Your task to perform on an android device: toggle priority inbox in the gmail app Image 0: 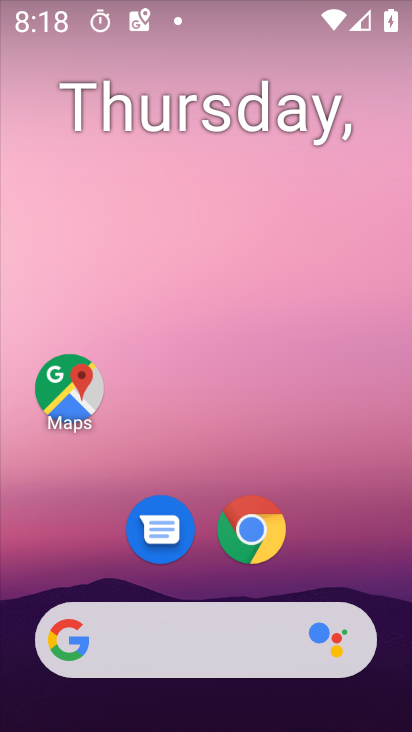
Step 0: drag from (388, 709) to (361, 212)
Your task to perform on an android device: toggle priority inbox in the gmail app Image 1: 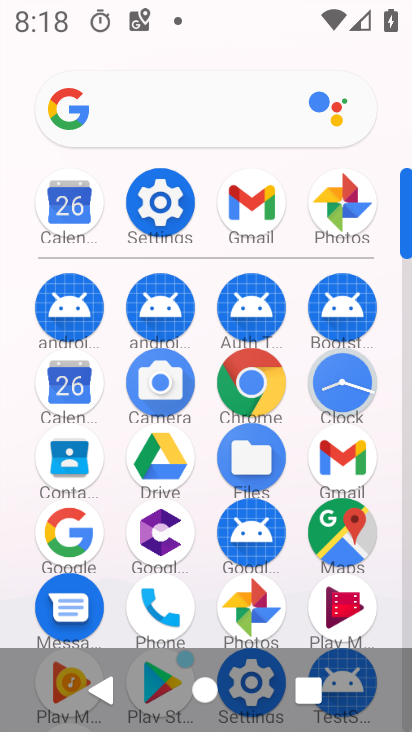
Step 1: click (356, 448)
Your task to perform on an android device: toggle priority inbox in the gmail app Image 2: 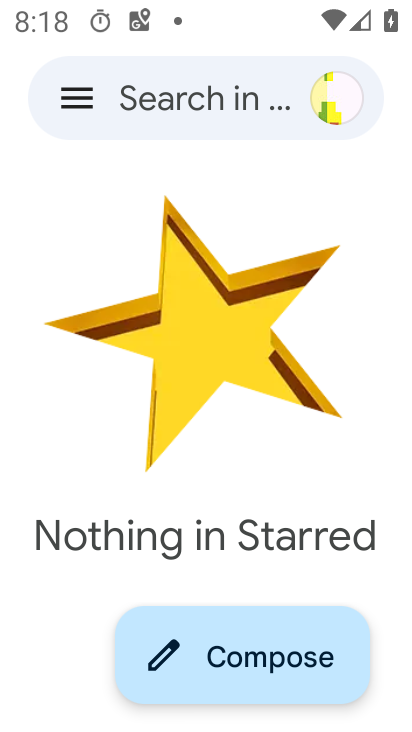
Step 2: click (70, 100)
Your task to perform on an android device: toggle priority inbox in the gmail app Image 3: 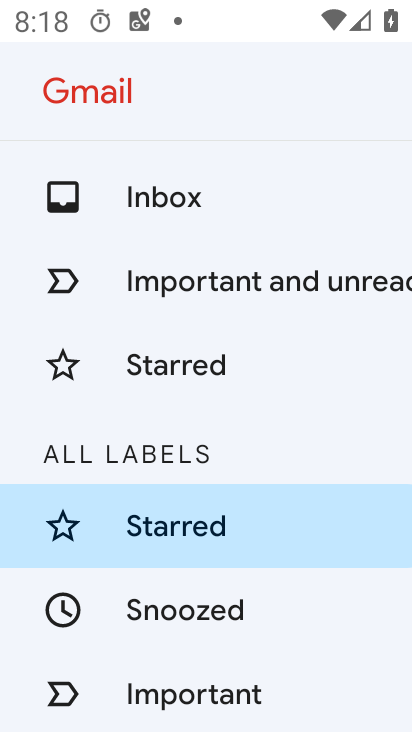
Step 3: drag from (375, 703) to (356, 131)
Your task to perform on an android device: toggle priority inbox in the gmail app Image 4: 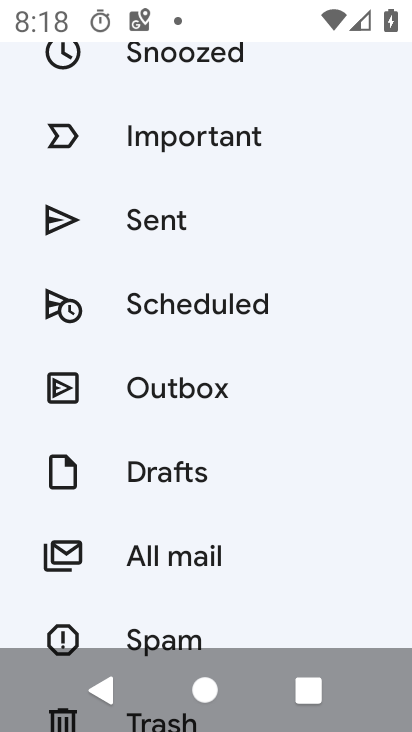
Step 4: drag from (342, 629) to (309, 168)
Your task to perform on an android device: toggle priority inbox in the gmail app Image 5: 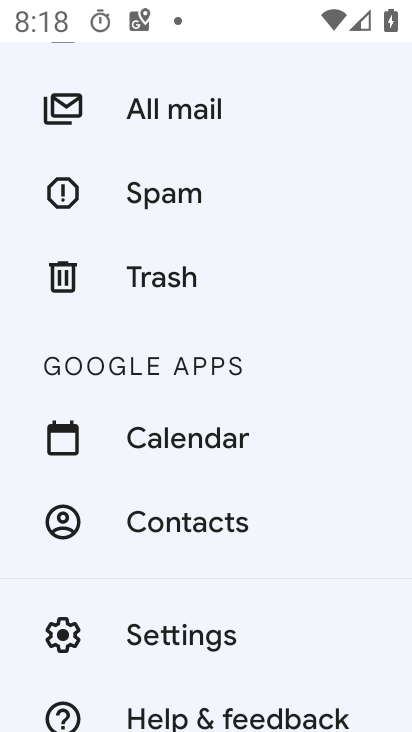
Step 5: click (202, 635)
Your task to perform on an android device: toggle priority inbox in the gmail app Image 6: 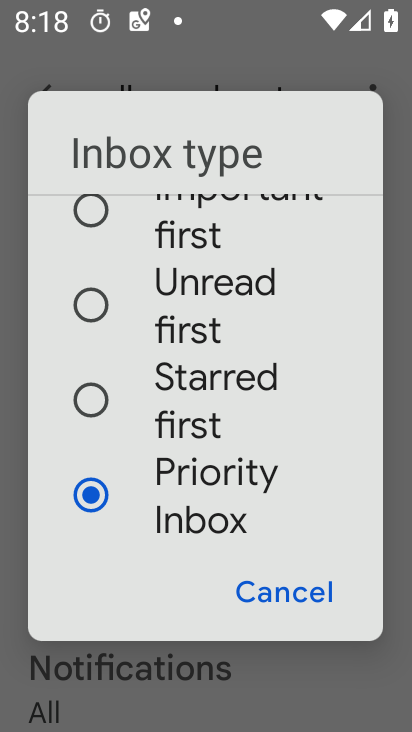
Step 6: click (253, 586)
Your task to perform on an android device: toggle priority inbox in the gmail app Image 7: 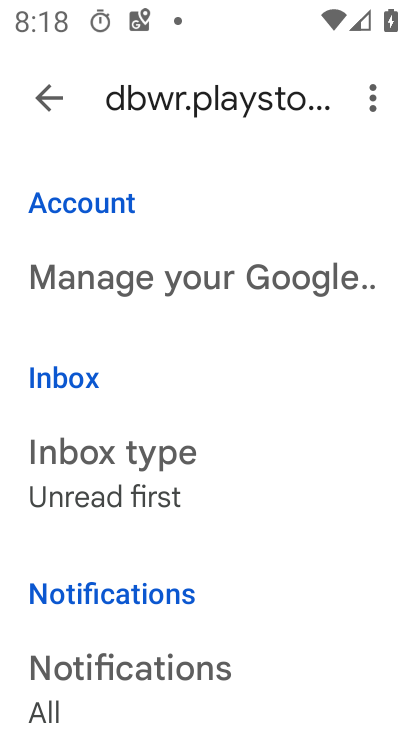
Step 7: click (81, 487)
Your task to perform on an android device: toggle priority inbox in the gmail app Image 8: 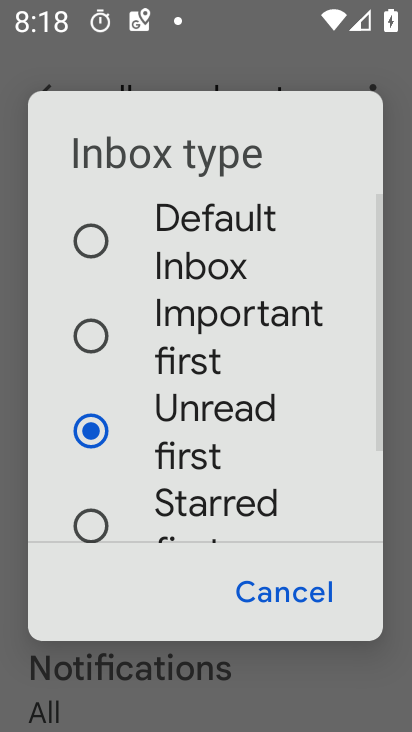
Step 8: drag from (188, 490) to (204, 200)
Your task to perform on an android device: toggle priority inbox in the gmail app Image 9: 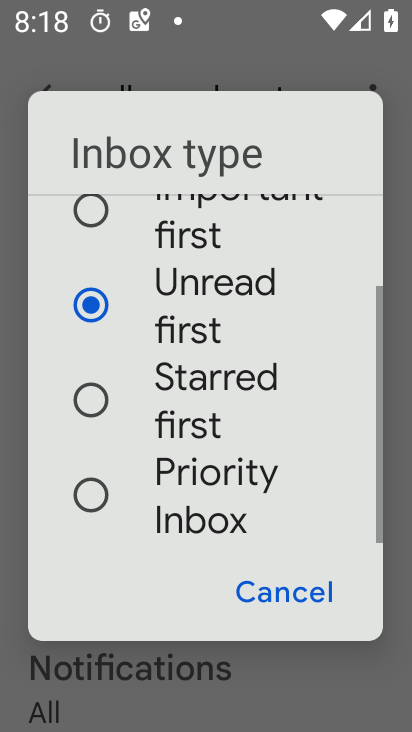
Step 9: click (83, 493)
Your task to perform on an android device: toggle priority inbox in the gmail app Image 10: 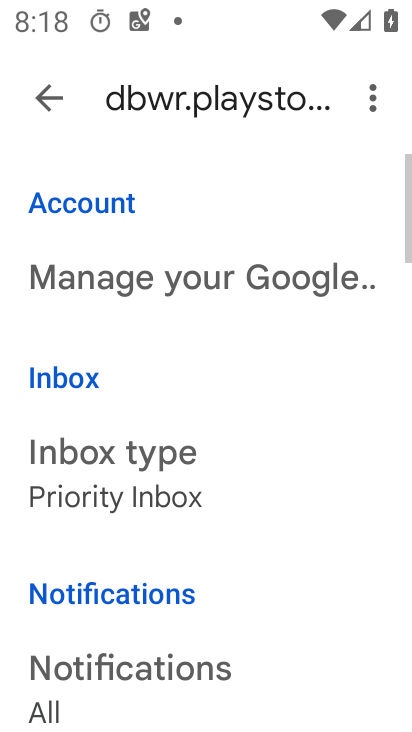
Step 10: task complete